Your task to perform on an android device: turn off notifications settings in the gmail app Image 0: 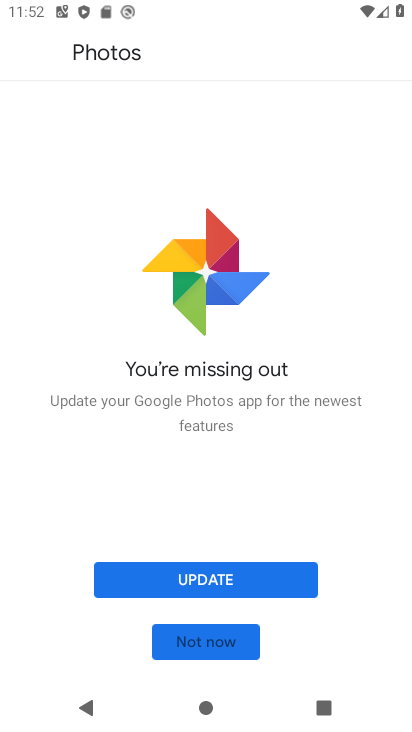
Step 0: press home button
Your task to perform on an android device: turn off notifications settings in the gmail app Image 1: 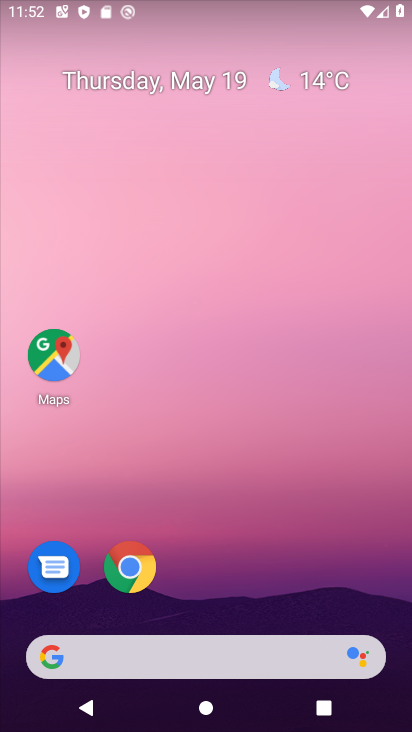
Step 1: drag from (374, 504) to (335, 32)
Your task to perform on an android device: turn off notifications settings in the gmail app Image 2: 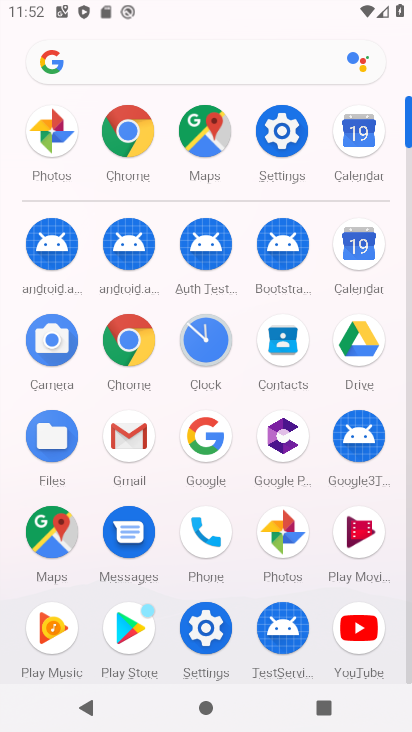
Step 2: click (141, 448)
Your task to perform on an android device: turn off notifications settings in the gmail app Image 3: 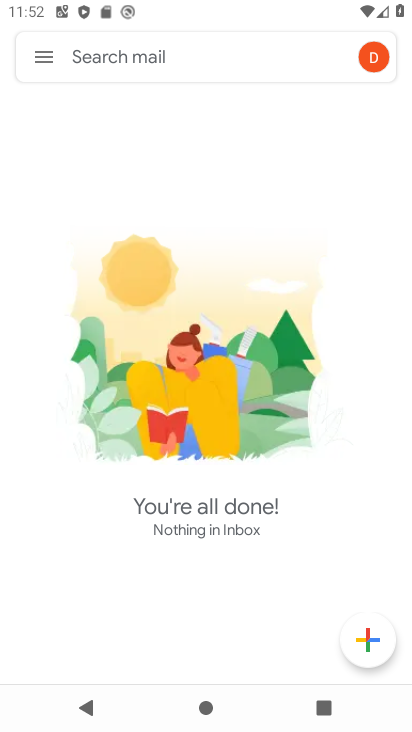
Step 3: click (43, 55)
Your task to perform on an android device: turn off notifications settings in the gmail app Image 4: 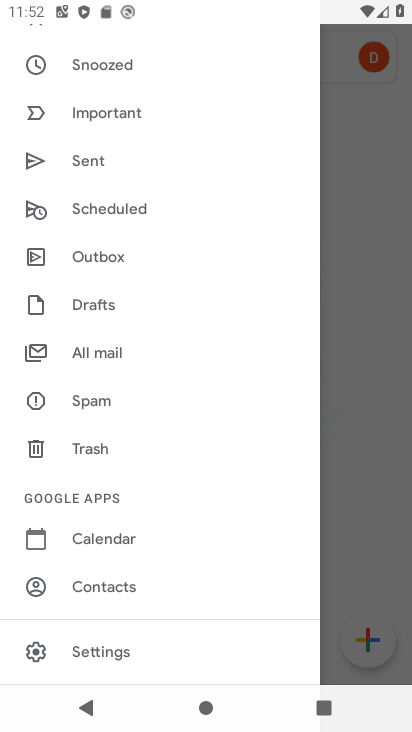
Step 4: click (126, 651)
Your task to perform on an android device: turn off notifications settings in the gmail app Image 5: 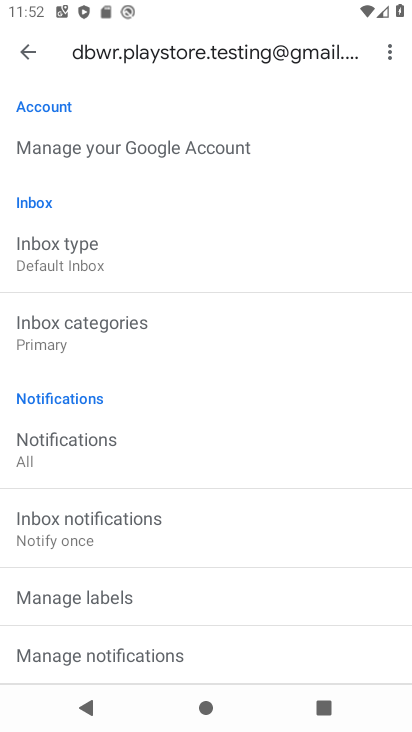
Step 5: click (70, 451)
Your task to perform on an android device: turn off notifications settings in the gmail app Image 6: 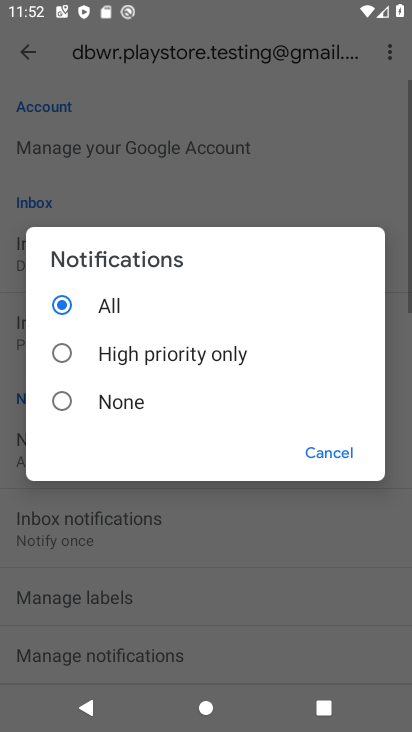
Step 6: click (109, 385)
Your task to perform on an android device: turn off notifications settings in the gmail app Image 7: 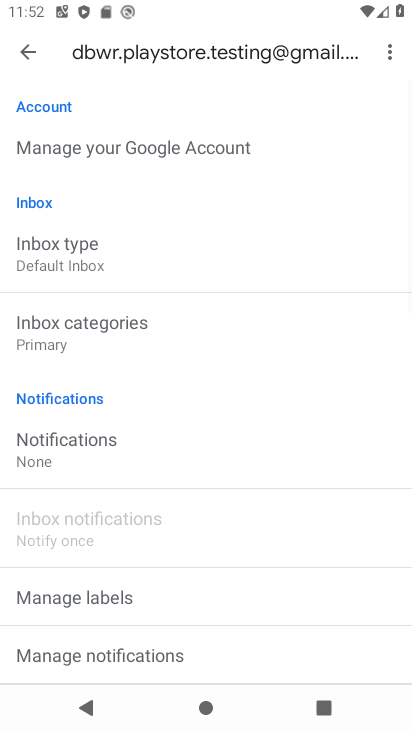
Step 7: task complete